Your task to perform on an android device: Do I have any events tomorrow? Image 0: 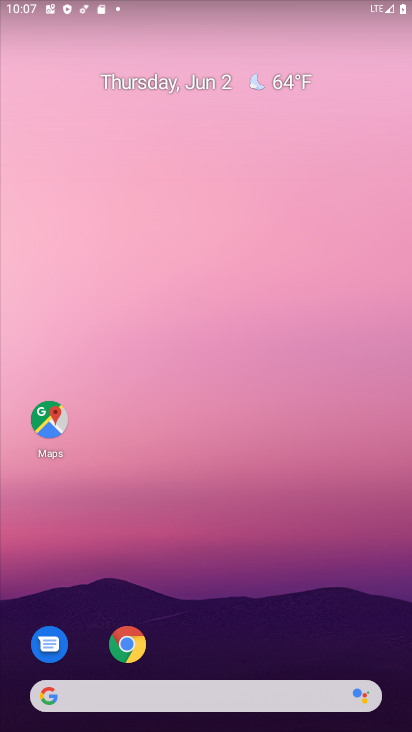
Step 0: press home button
Your task to perform on an android device: Do I have any events tomorrow? Image 1: 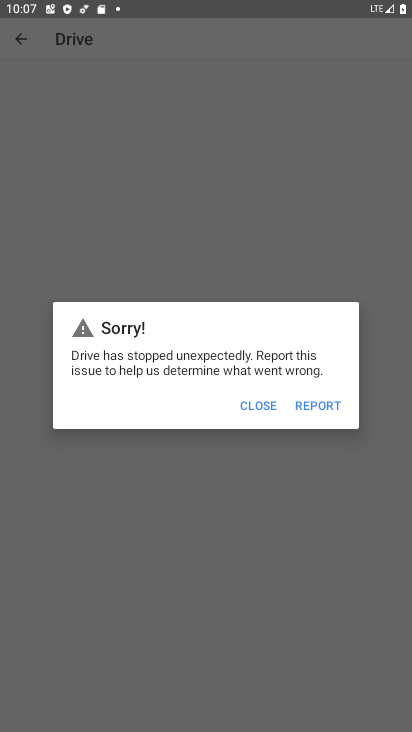
Step 1: click (191, 95)
Your task to perform on an android device: Do I have any events tomorrow? Image 2: 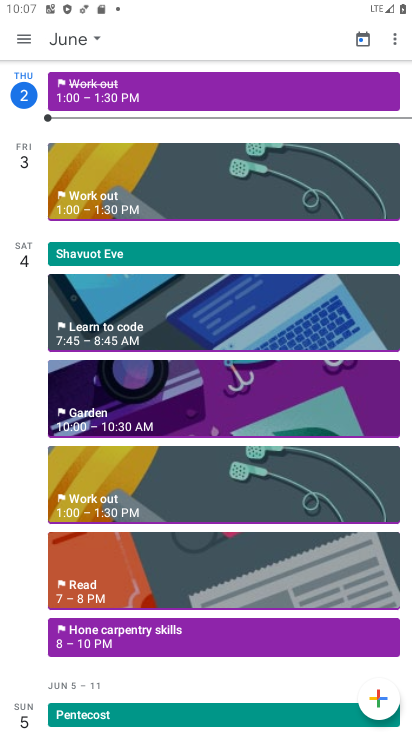
Step 2: press home button
Your task to perform on an android device: Do I have any events tomorrow? Image 3: 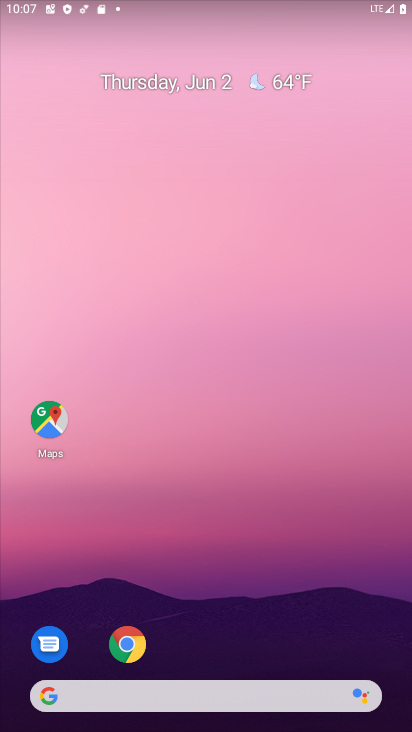
Step 3: drag from (225, 666) to (193, 140)
Your task to perform on an android device: Do I have any events tomorrow? Image 4: 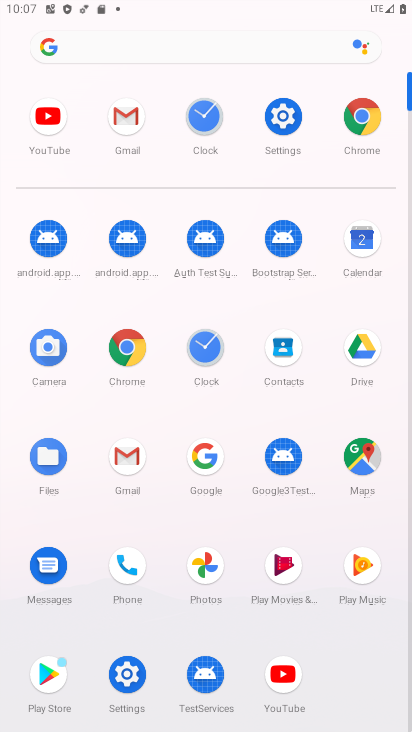
Step 4: click (357, 255)
Your task to perform on an android device: Do I have any events tomorrow? Image 5: 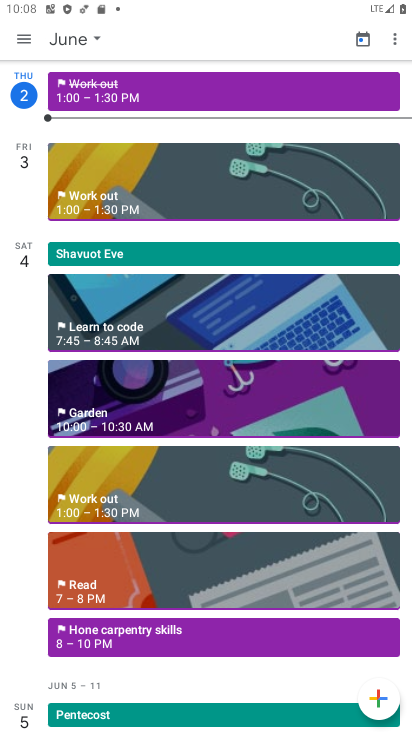
Step 5: click (97, 32)
Your task to perform on an android device: Do I have any events tomorrow? Image 6: 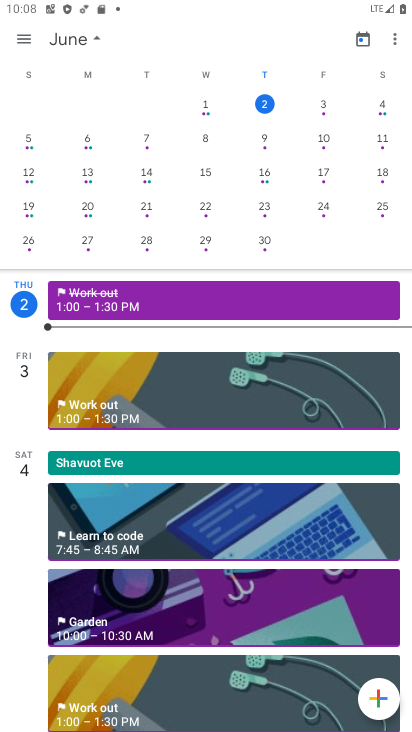
Step 6: click (320, 108)
Your task to perform on an android device: Do I have any events tomorrow? Image 7: 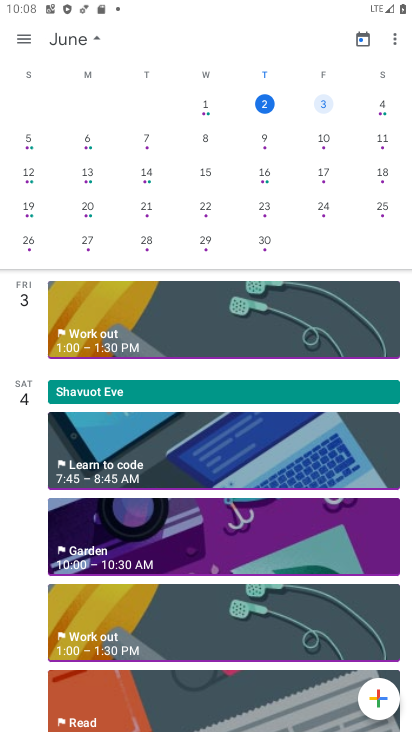
Step 7: click (379, 112)
Your task to perform on an android device: Do I have any events tomorrow? Image 8: 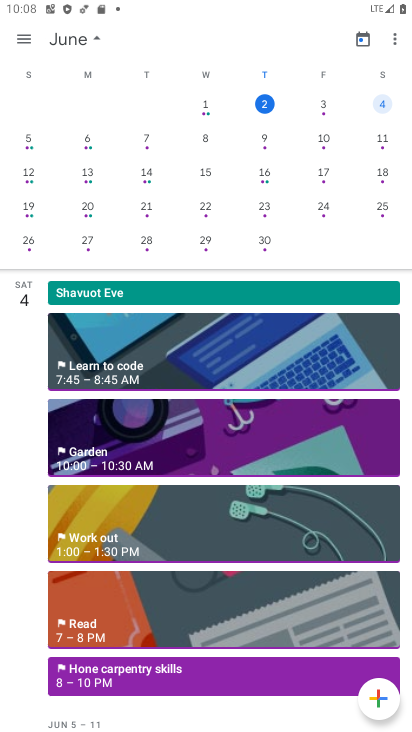
Step 8: click (93, 41)
Your task to perform on an android device: Do I have any events tomorrow? Image 9: 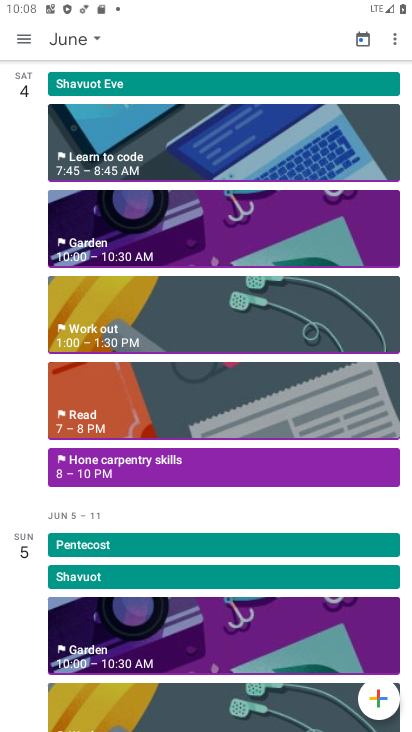
Step 9: task complete